Your task to perform on an android device: Open maps Image 0: 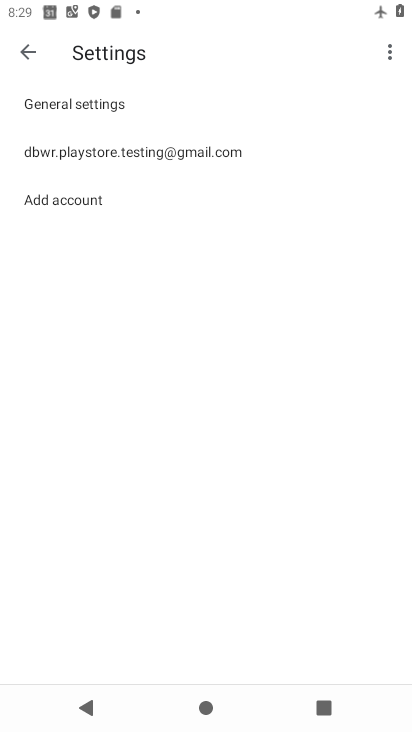
Step 0: press home button
Your task to perform on an android device: Open maps Image 1: 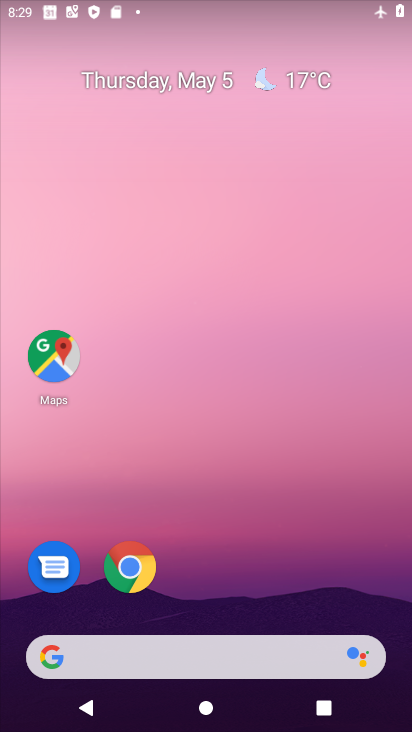
Step 1: drag from (221, 506) to (303, 6)
Your task to perform on an android device: Open maps Image 2: 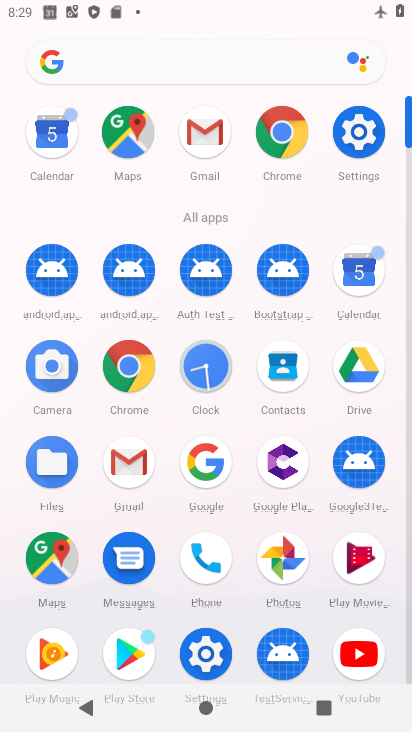
Step 2: click (133, 138)
Your task to perform on an android device: Open maps Image 3: 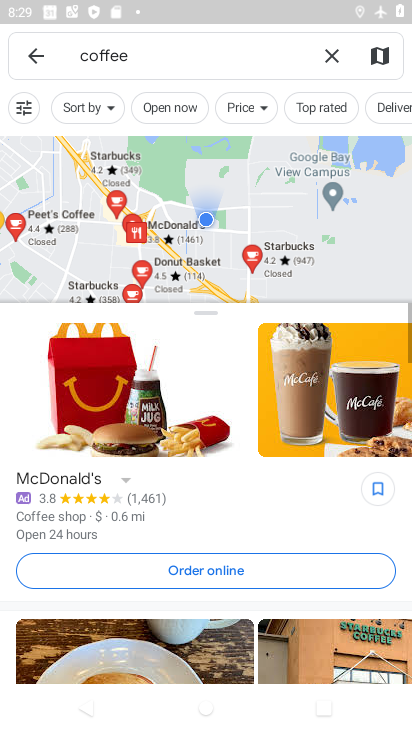
Step 3: click (327, 52)
Your task to perform on an android device: Open maps Image 4: 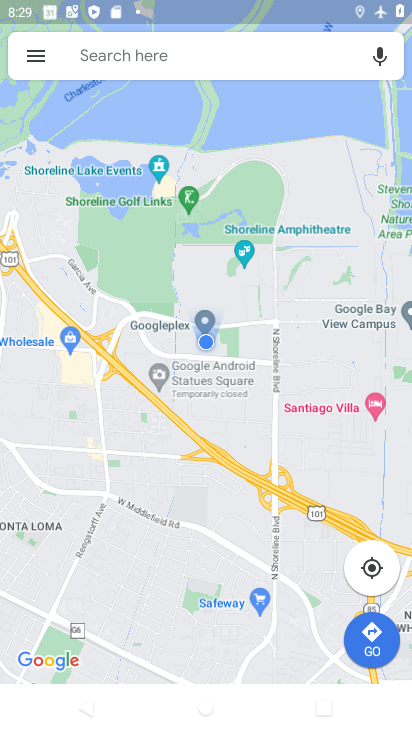
Step 4: task complete